Your task to perform on an android device: toggle location history Image 0: 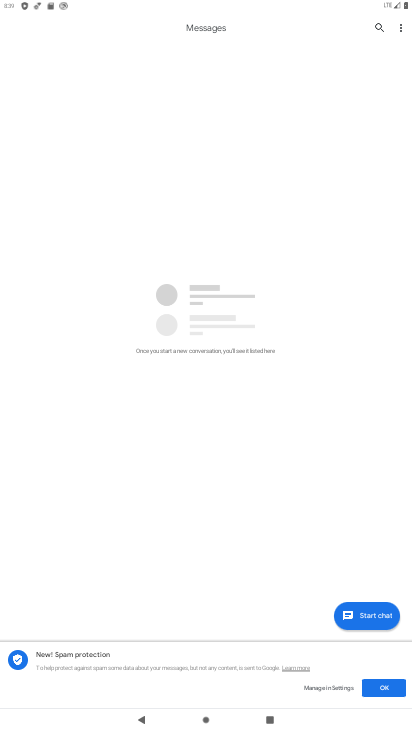
Step 0: press home button
Your task to perform on an android device: toggle location history Image 1: 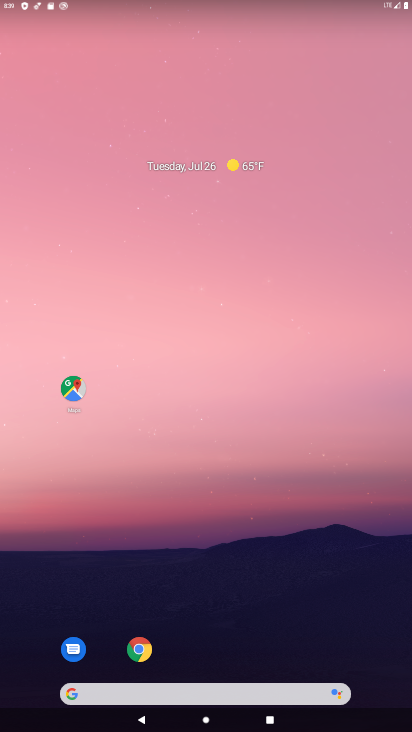
Step 1: drag from (188, 693) to (303, 112)
Your task to perform on an android device: toggle location history Image 2: 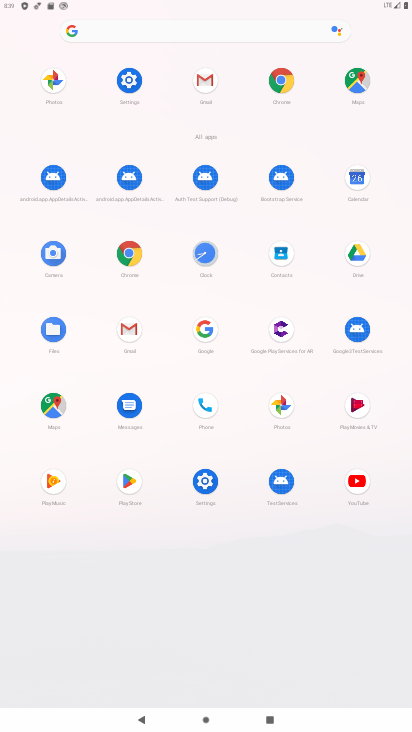
Step 2: click (130, 79)
Your task to perform on an android device: toggle location history Image 3: 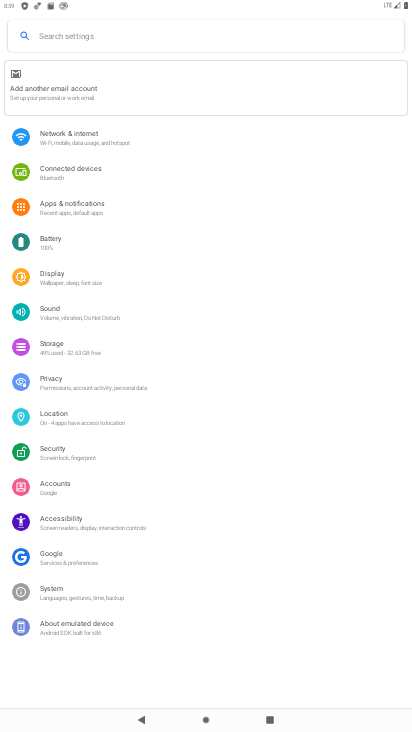
Step 3: click (59, 420)
Your task to perform on an android device: toggle location history Image 4: 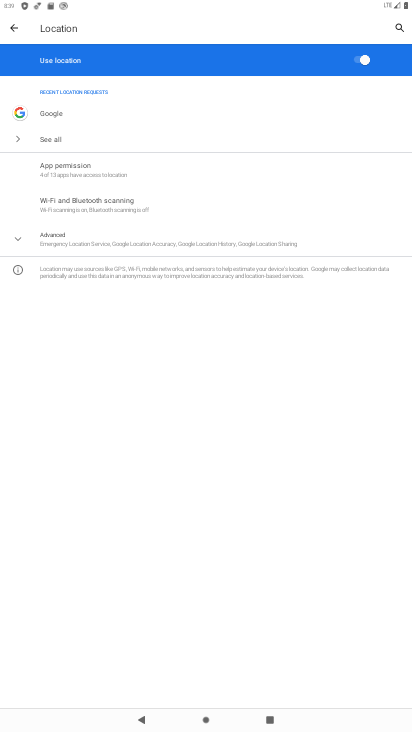
Step 4: click (114, 243)
Your task to perform on an android device: toggle location history Image 5: 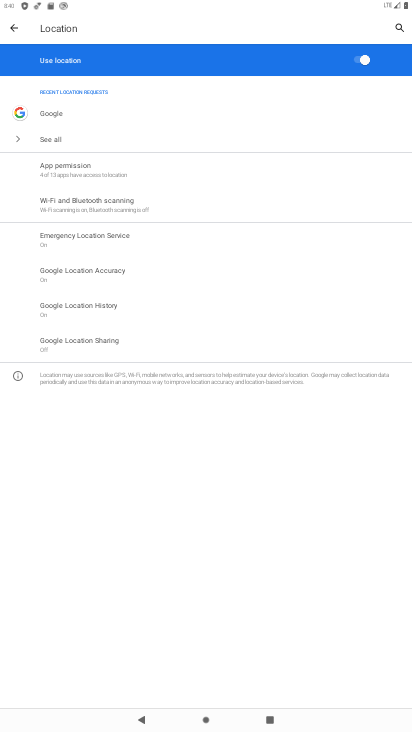
Step 5: click (108, 307)
Your task to perform on an android device: toggle location history Image 6: 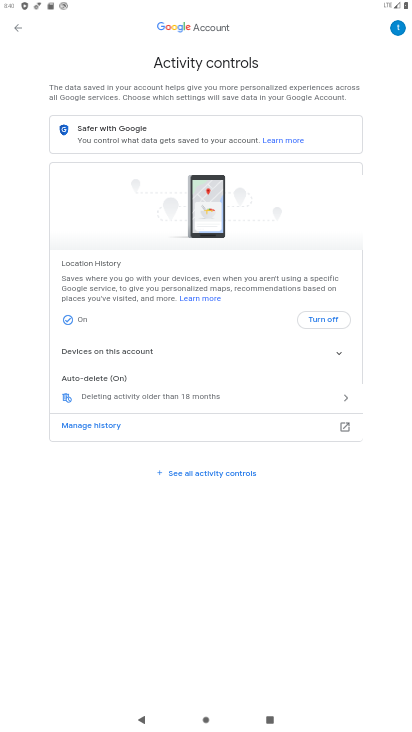
Step 6: click (333, 321)
Your task to perform on an android device: toggle location history Image 7: 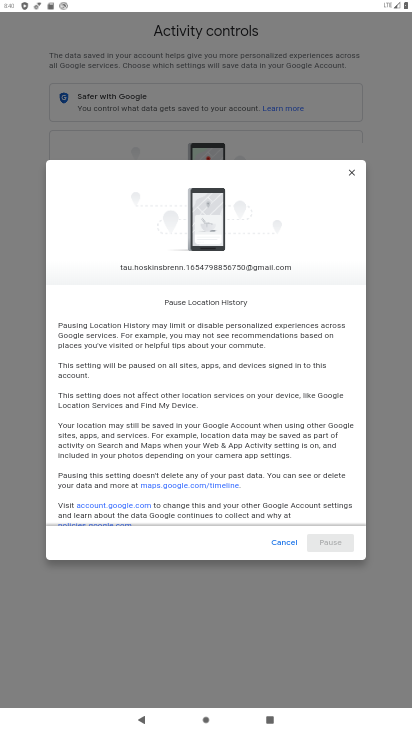
Step 7: drag from (307, 503) to (327, 353)
Your task to perform on an android device: toggle location history Image 8: 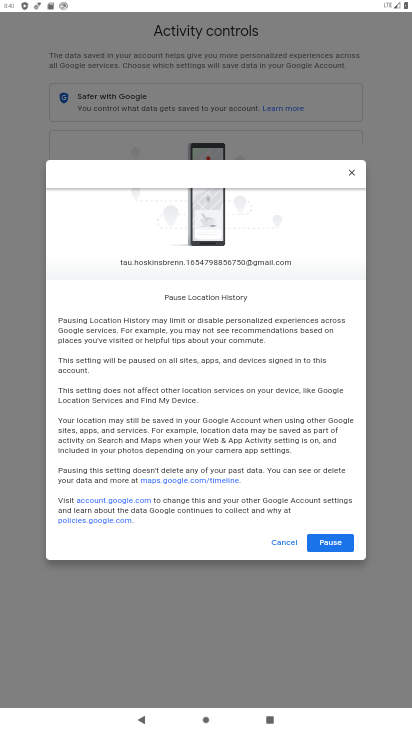
Step 8: click (314, 543)
Your task to perform on an android device: toggle location history Image 9: 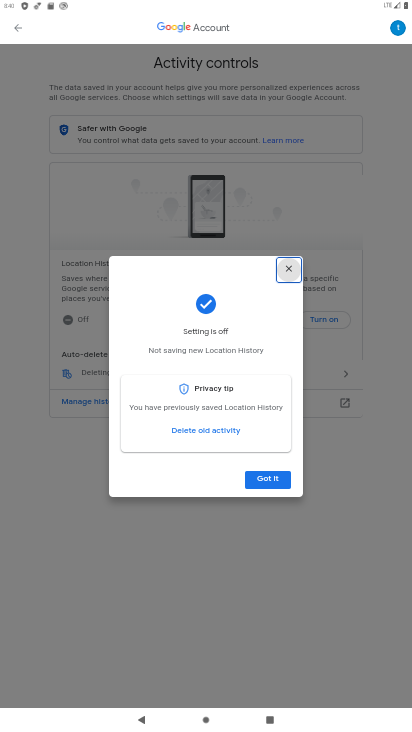
Step 9: click (259, 487)
Your task to perform on an android device: toggle location history Image 10: 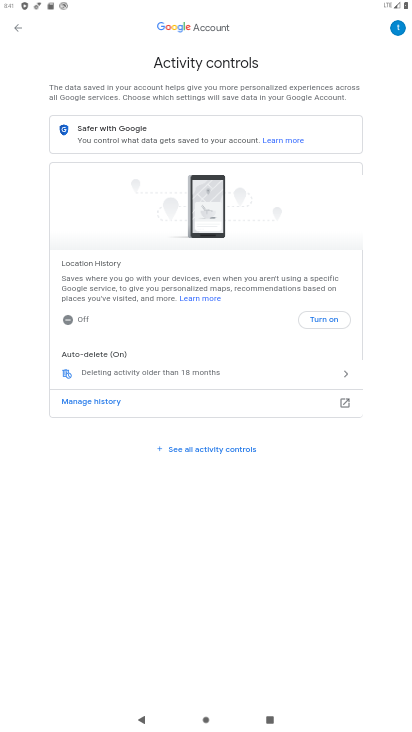
Step 10: task complete